Your task to perform on an android device: Go to settings Image 0: 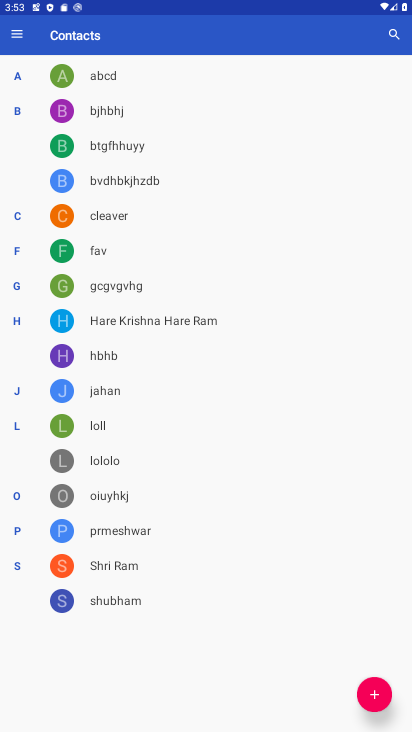
Step 0: press home button
Your task to perform on an android device: Go to settings Image 1: 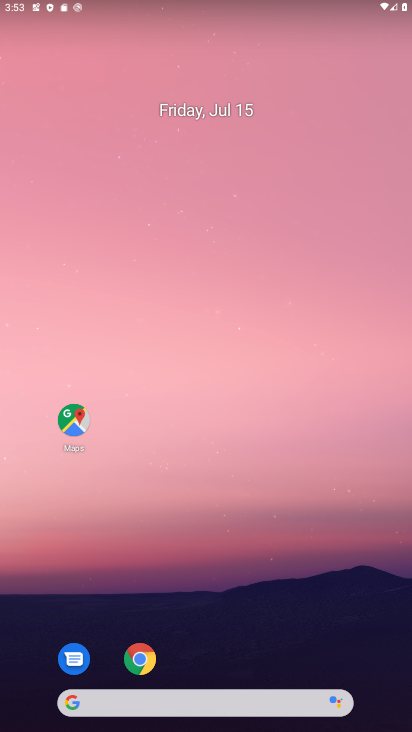
Step 1: task complete